Your task to perform on an android device: check android version Image 0: 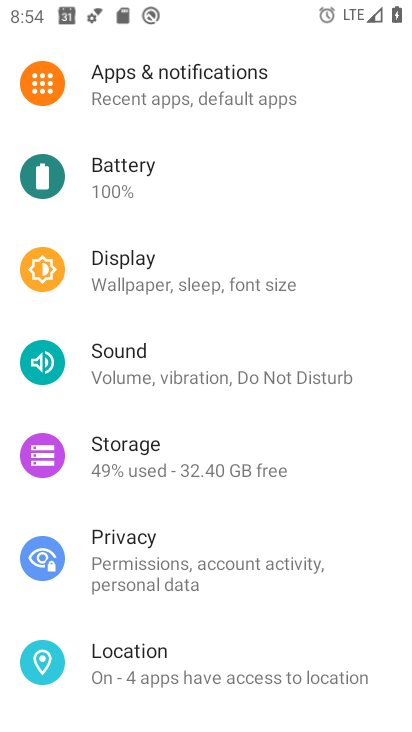
Step 0: drag from (252, 561) to (231, 137)
Your task to perform on an android device: check android version Image 1: 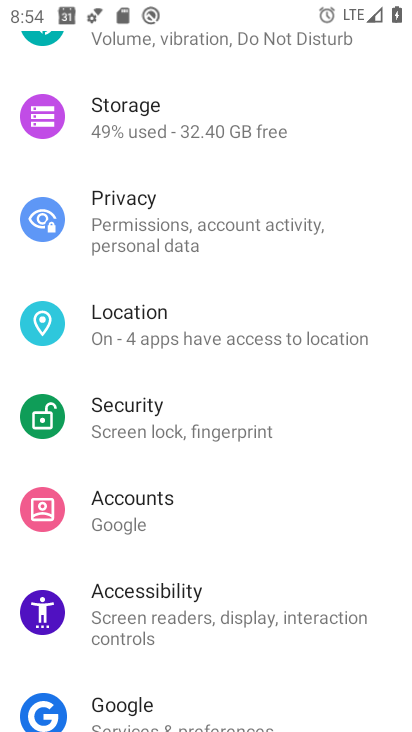
Step 1: drag from (244, 441) to (250, 144)
Your task to perform on an android device: check android version Image 2: 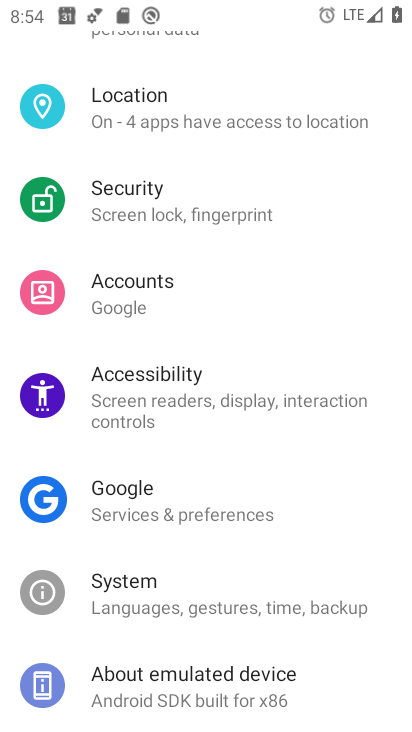
Step 2: click (245, 685)
Your task to perform on an android device: check android version Image 3: 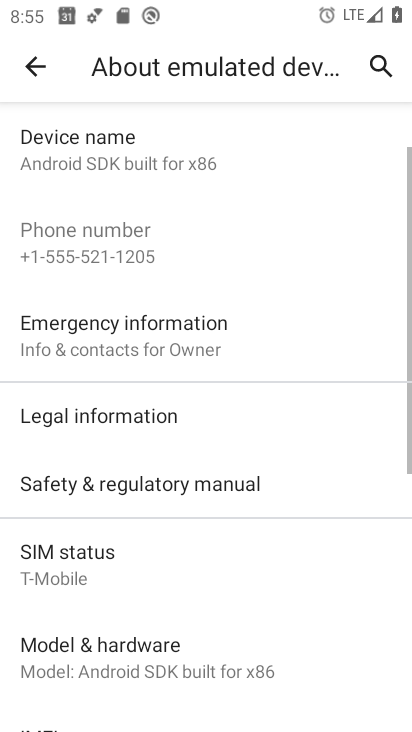
Step 3: drag from (202, 577) to (213, 188)
Your task to perform on an android device: check android version Image 4: 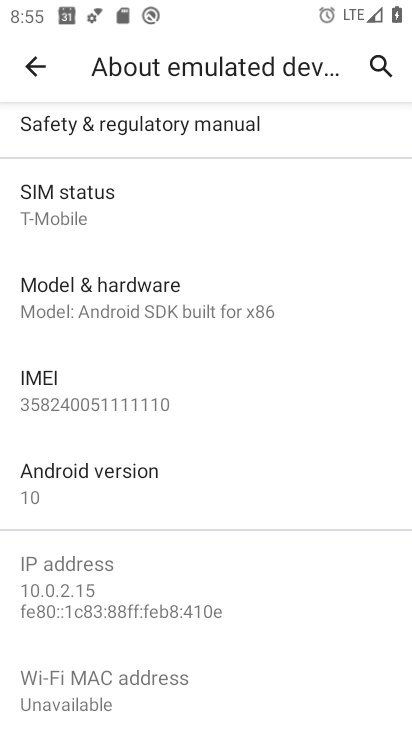
Step 4: click (154, 470)
Your task to perform on an android device: check android version Image 5: 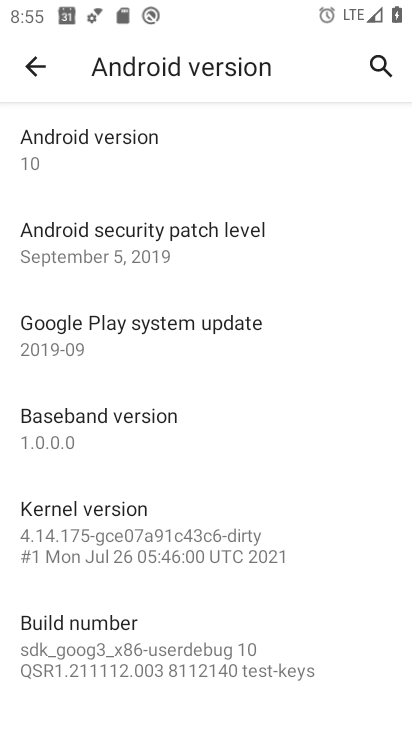
Step 5: task complete